Your task to perform on an android device: Open wifi settings Image 0: 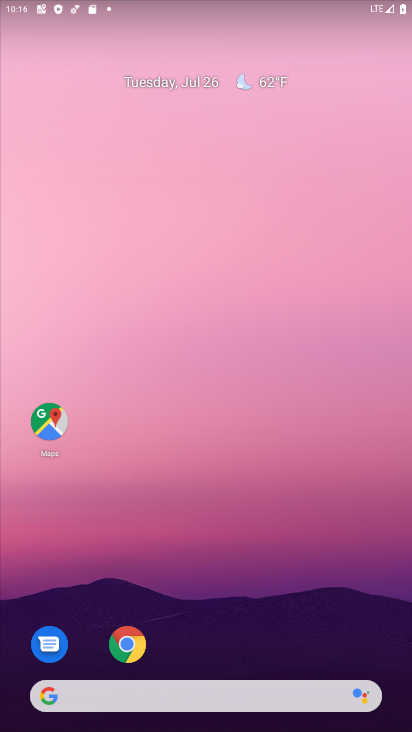
Step 0: drag from (264, 642) to (288, 26)
Your task to perform on an android device: Open wifi settings Image 1: 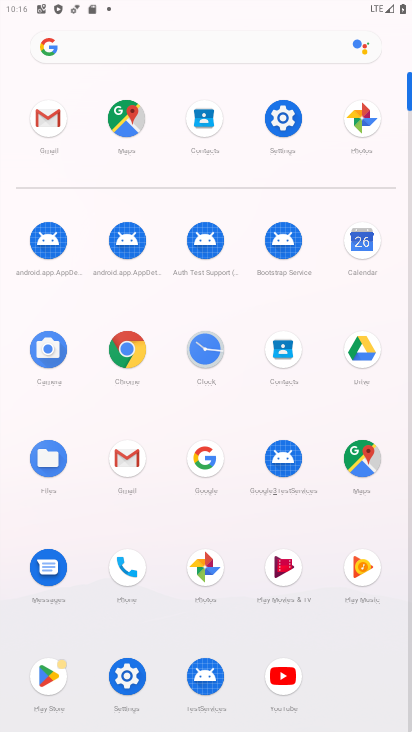
Step 1: click (280, 121)
Your task to perform on an android device: Open wifi settings Image 2: 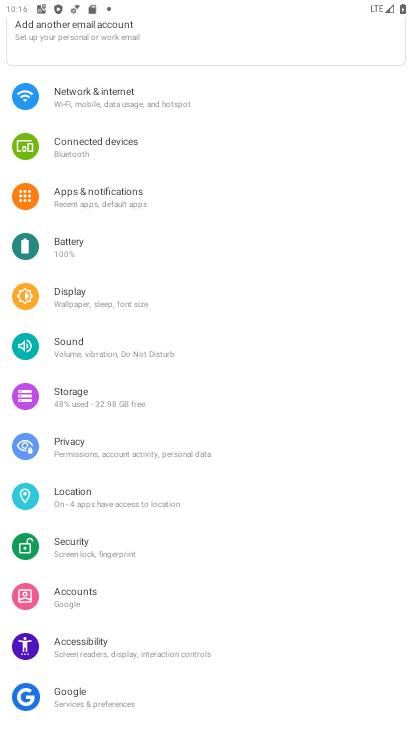
Step 2: click (88, 101)
Your task to perform on an android device: Open wifi settings Image 3: 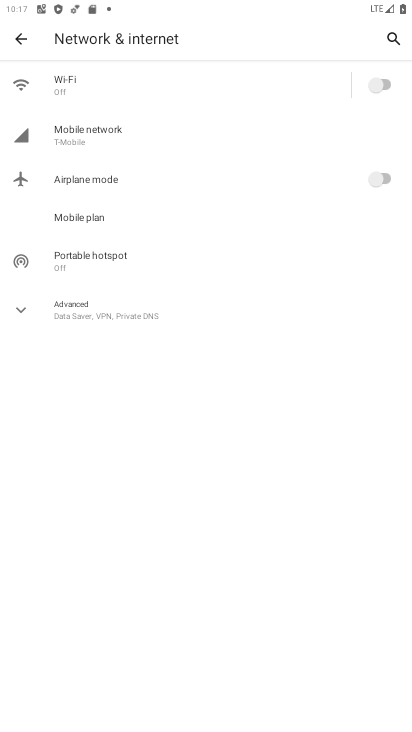
Step 3: click (43, 85)
Your task to perform on an android device: Open wifi settings Image 4: 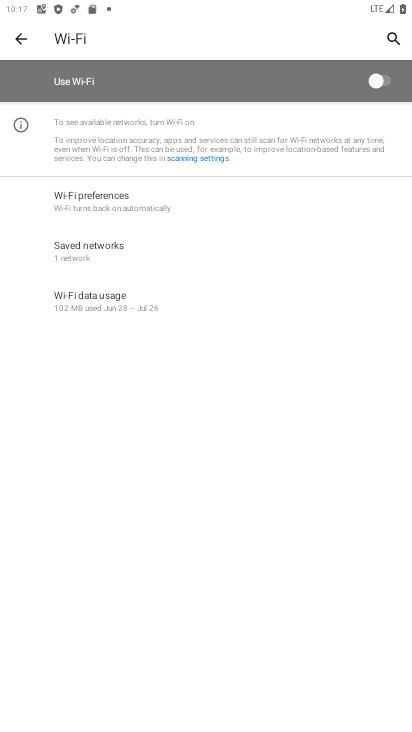
Step 4: task complete